Your task to perform on an android device: change the clock display to show seconds Image 0: 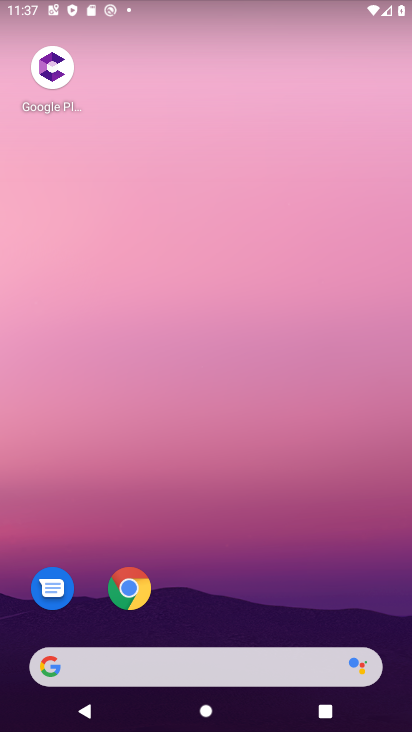
Step 0: drag from (227, 542) to (297, 58)
Your task to perform on an android device: change the clock display to show seconds Image 1: 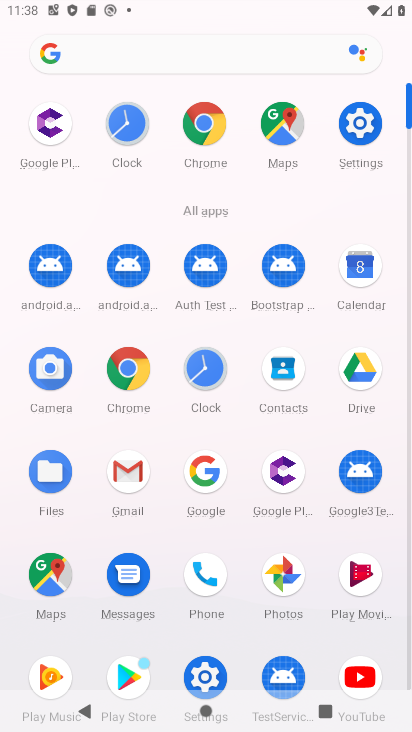
Step 1: click (204, 368)
Your task to perform on an android device: change the clock display to show seconds Image 2: 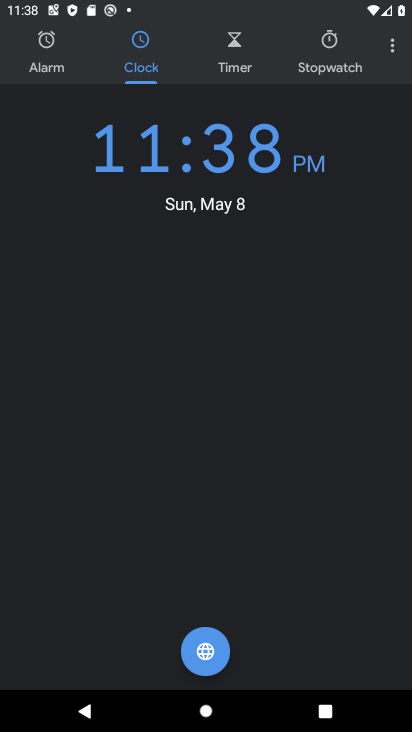
Step 2: click (392, 42)
Your task to perform on an android device: change the clock display to show seconds Image 3: 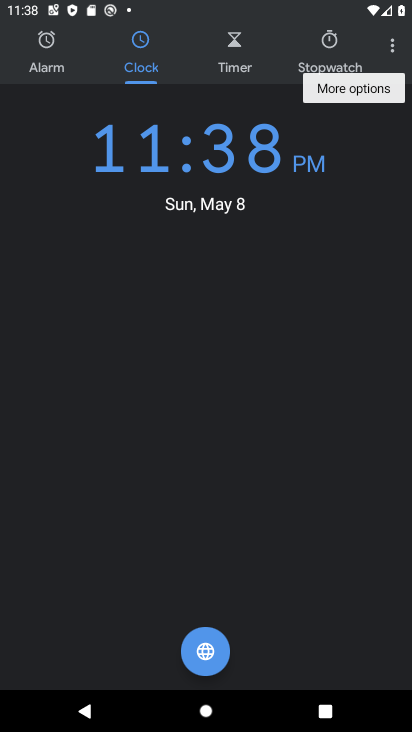
Step 3: drag from (388, 45) to (353, 146)
Your task to perform on an android device: change the clock display to show seconds Image 4: 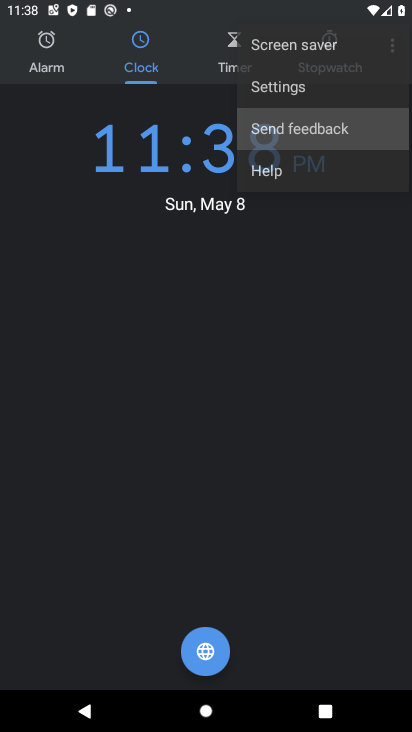
Step 4: click (391, 35)
Your task to perform on an android device: change the clock display to show seconds Image 5: 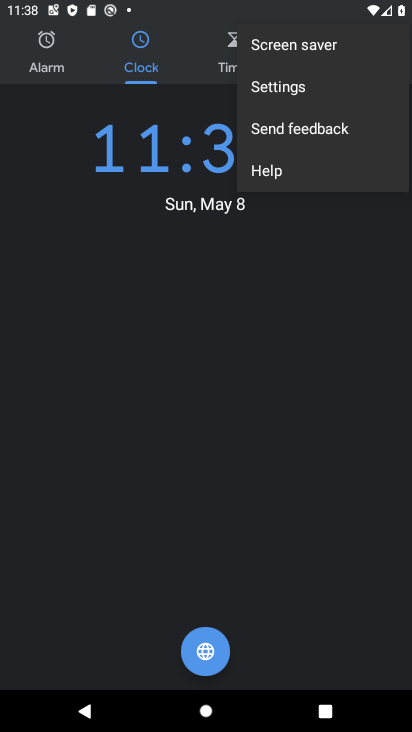
Step 5: click (290, 74)
Your task to perform on an android device: change the clock display to show seconds Image 6: 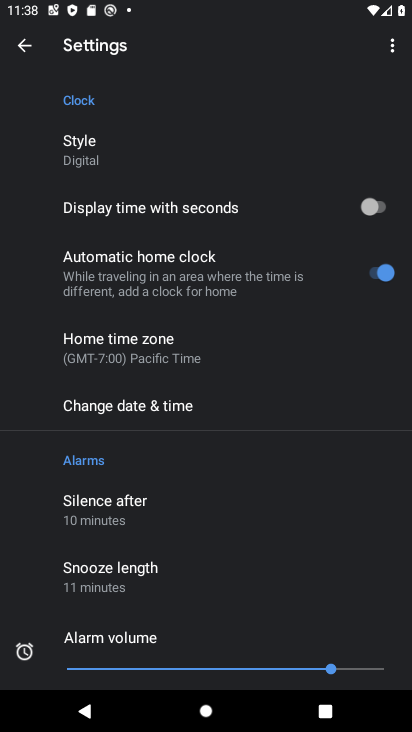
Step 6: click (84, 147)
Your task to perform on an android device: change the clock display to show seconds Image 7: 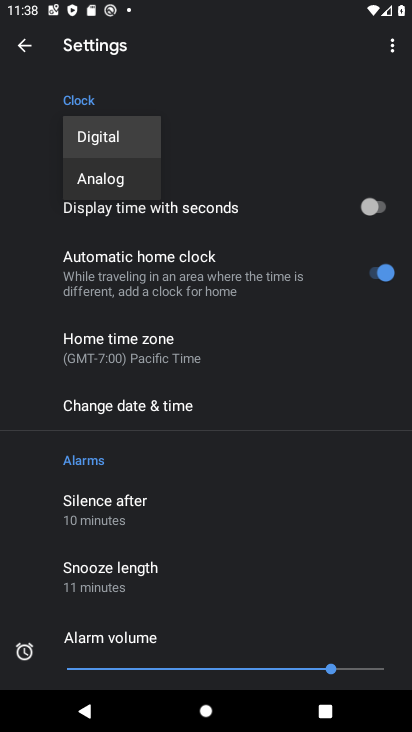
Step 7: click (105, 143)
Your task to perform on an android device: change the clock display to show seconds Image 8: 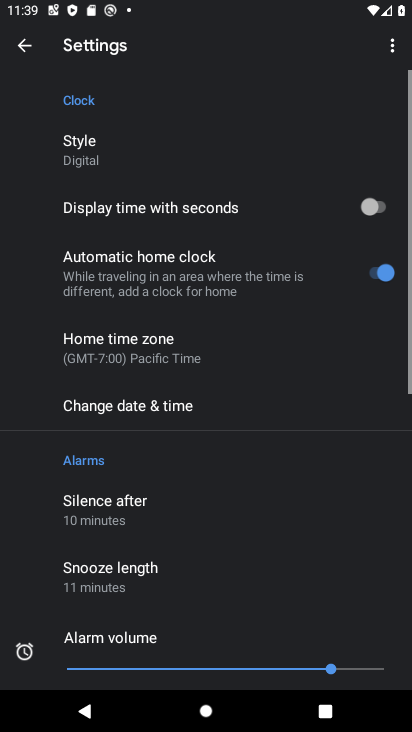
Step 8: click (376, 207)
Your task to perform on an android device: change the clock display to show seconds Image 9: 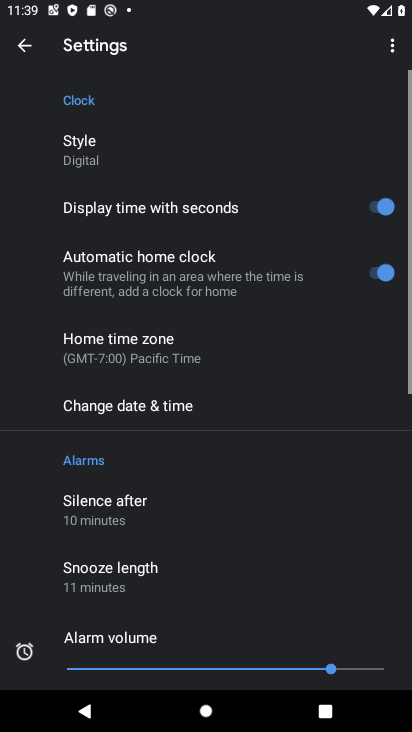
Step 9: task complete